Your task to perform on an android device: toggle wifi Image 0: 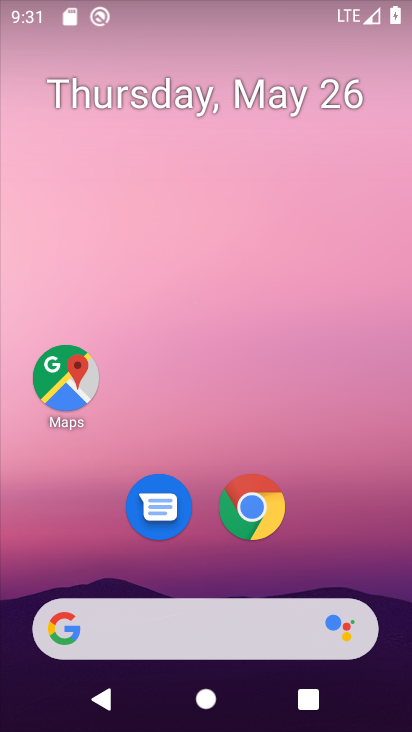
Step 0: drag from (365, 548) to (353, 72)
Your task to perform on an android device: toggle wifi Image 1: 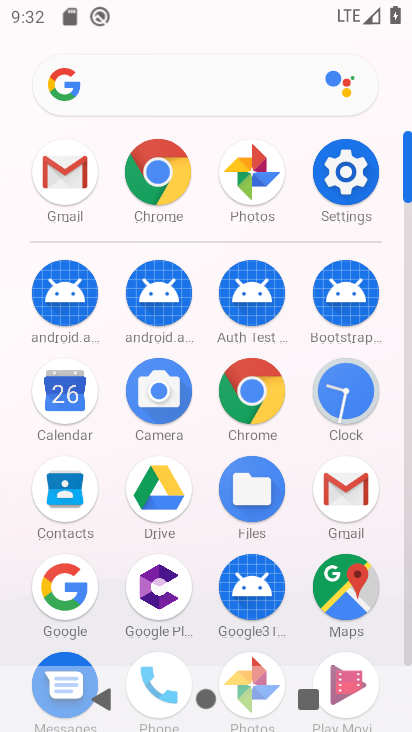
Step 1: click (359, 193)
Your task to perform on an android device: toggle wifi Image 2: 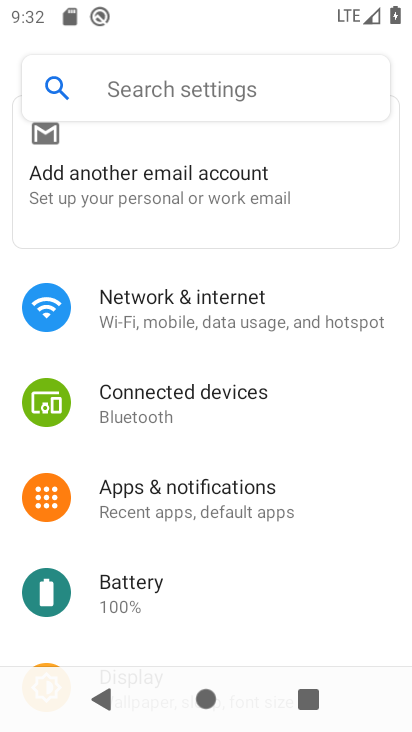
Step 2: drag from (339, 530) to (350, 378)
Your task to perform on an android device: toggle wifi Image 3: 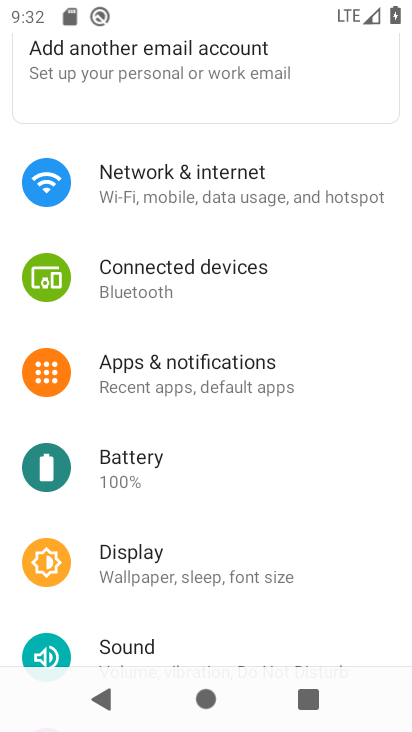
Step 3: drag from (337, 542) to (348, 390)
Your task to perform on an android device: toggle wifi Image 4: 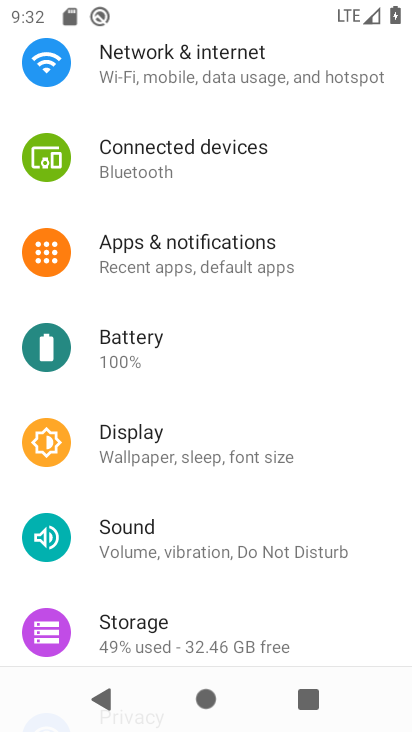
Step 4: drag from (347, 596) to (370, 433)
Your task to perform on an android device: toggle wifi Image 5: 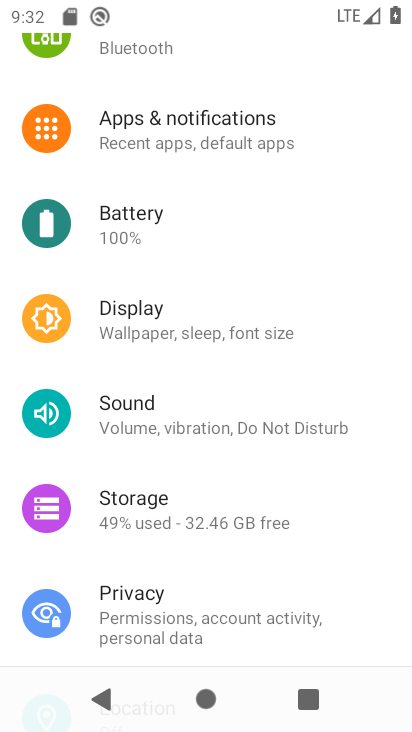
Step 5: drag from (352, 291) to (346, 429)
Your task to perform on an android device: toggle wifi Image 6: 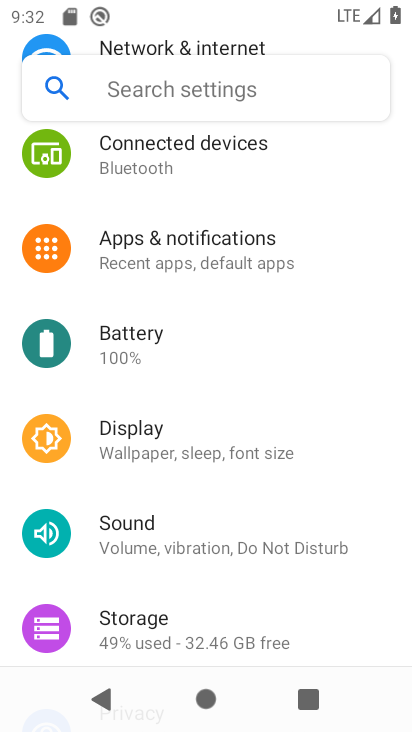
Step 6: drag from (352, 218) to (346, 395)
Your task to perform on an android device: toggle wifi Image 7: 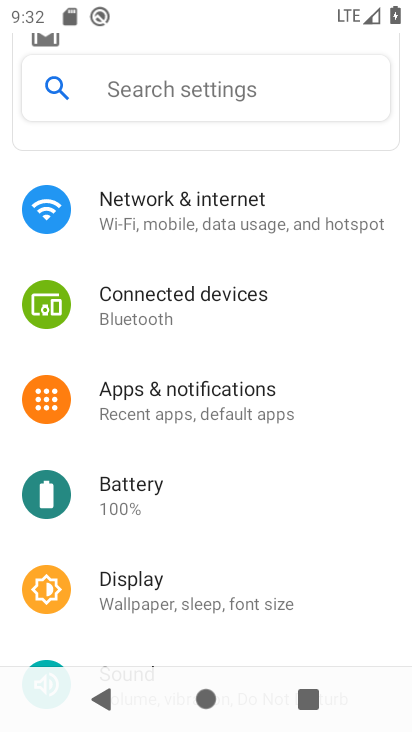
Step 7: drag from (344, 270) to (340, 394)
Your task to perform on an android device: toggle wifi Image 8: 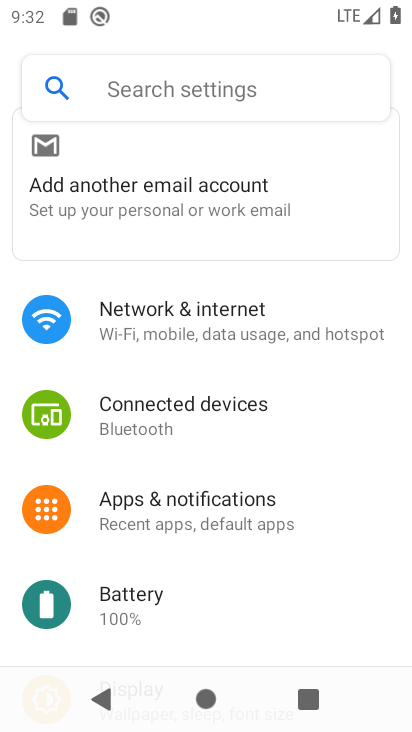
Step 8: drag from (339, 269) to (324, 463)
Your task to perform on an android device: toggle wifi Image 9: 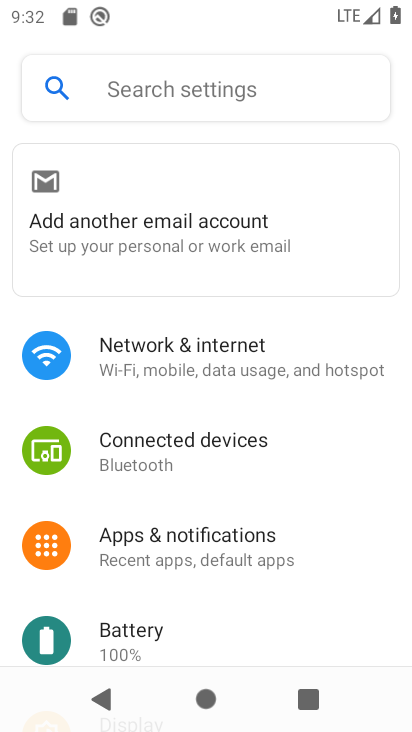
Step 9: click (251, 381)
Your task to perform on an android device: toggle wifi Image 10: 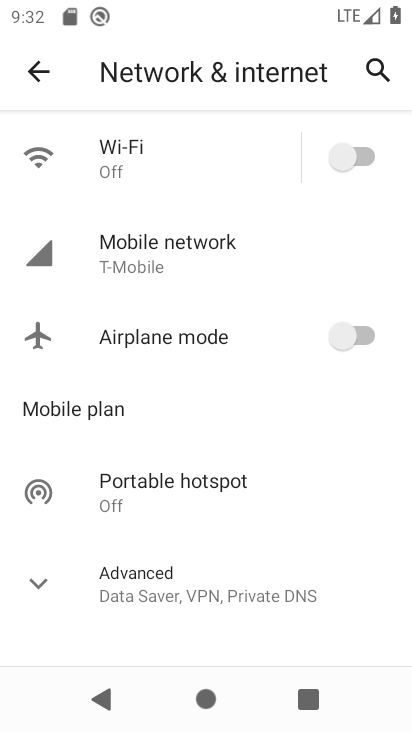
Step 10: click (349, 158)
Your task to perform on an android device: toggle wifi Image 11: 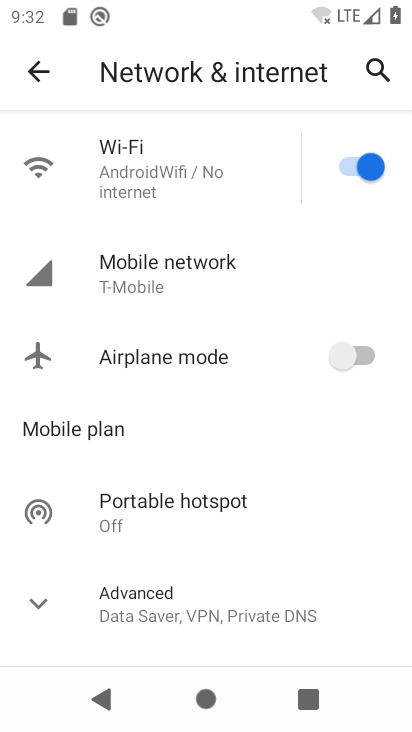
Step 11: task complete